Your task to perform on an android device: What's the weather like in Delhi? Image 0: 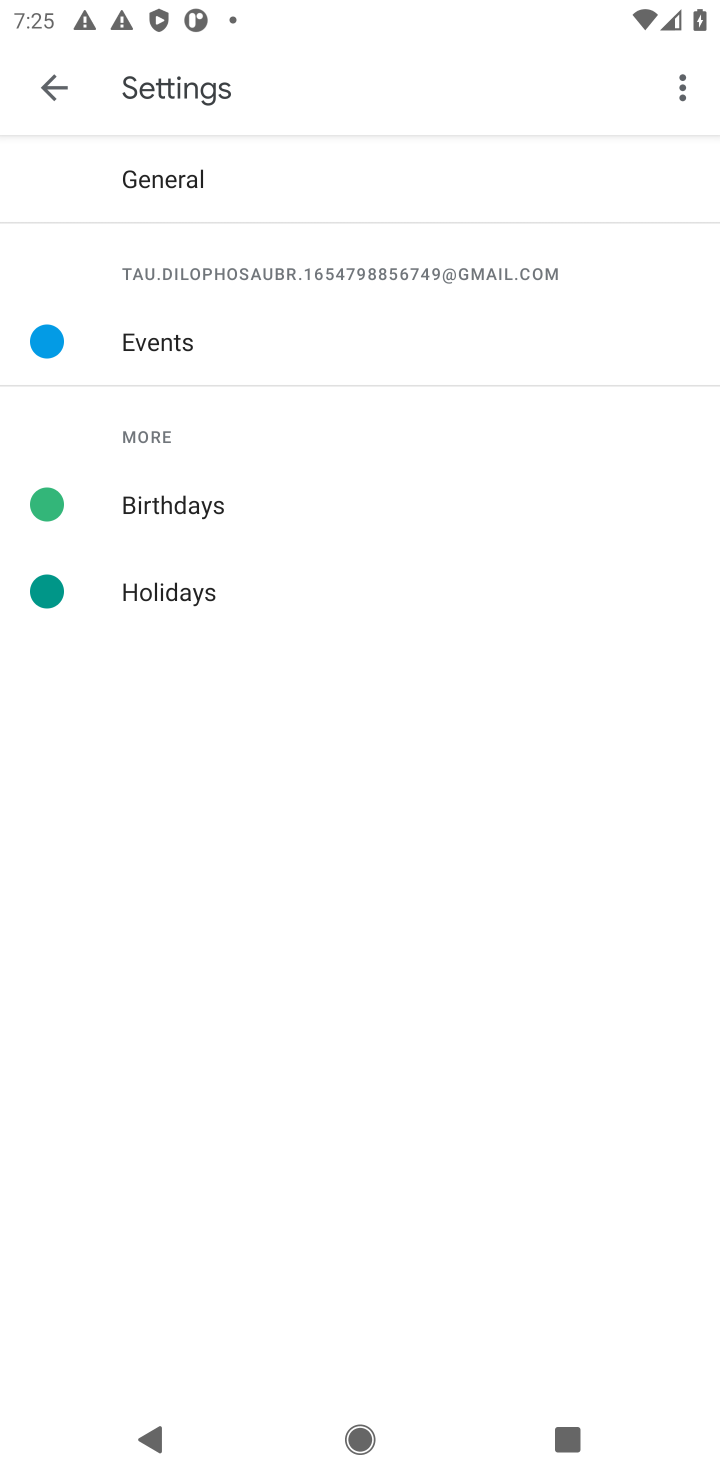
Step 0: press home button
Your task to perform on an android device: What's the weather like in Delhi? Image 1: 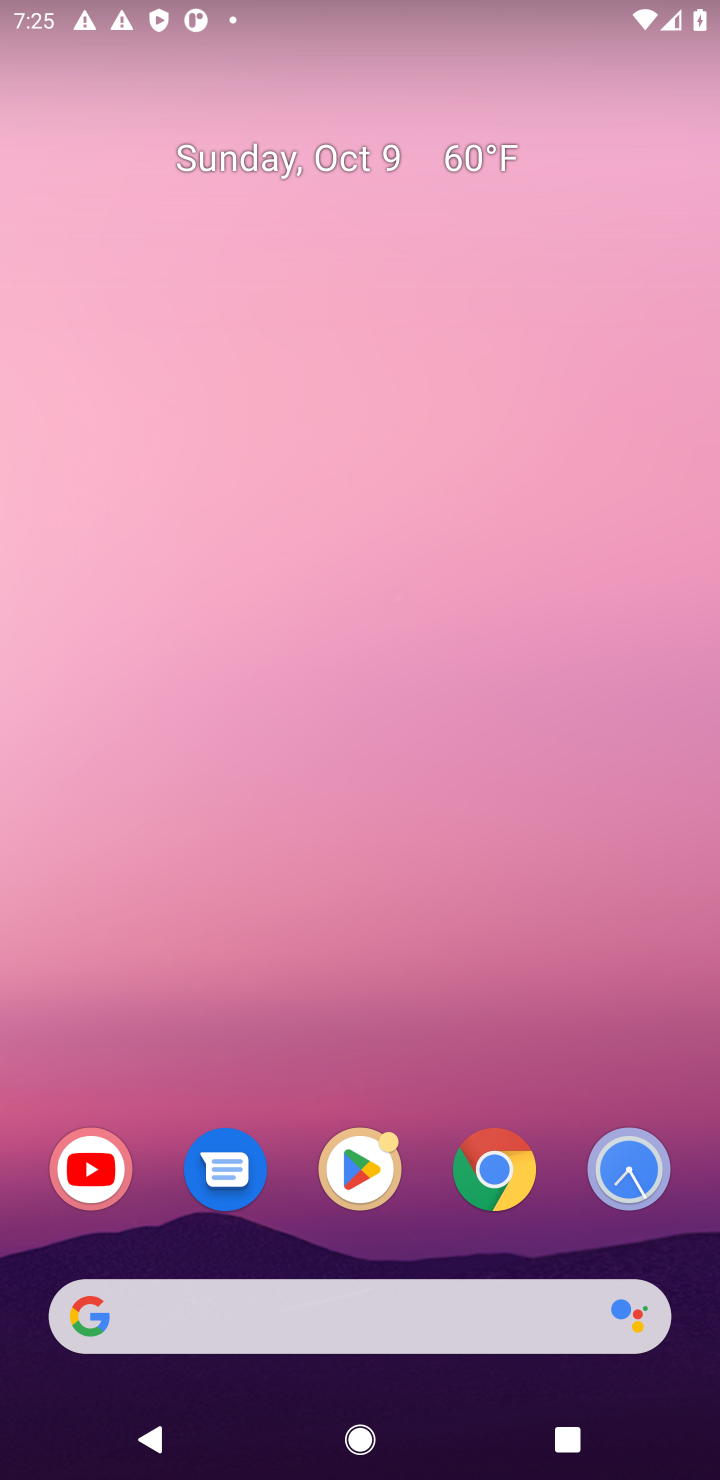
Step 1: drag from (426, 1083) to (461, 114)
Your task to perform on an android device: What's the weather like in Delhi? Image 2: 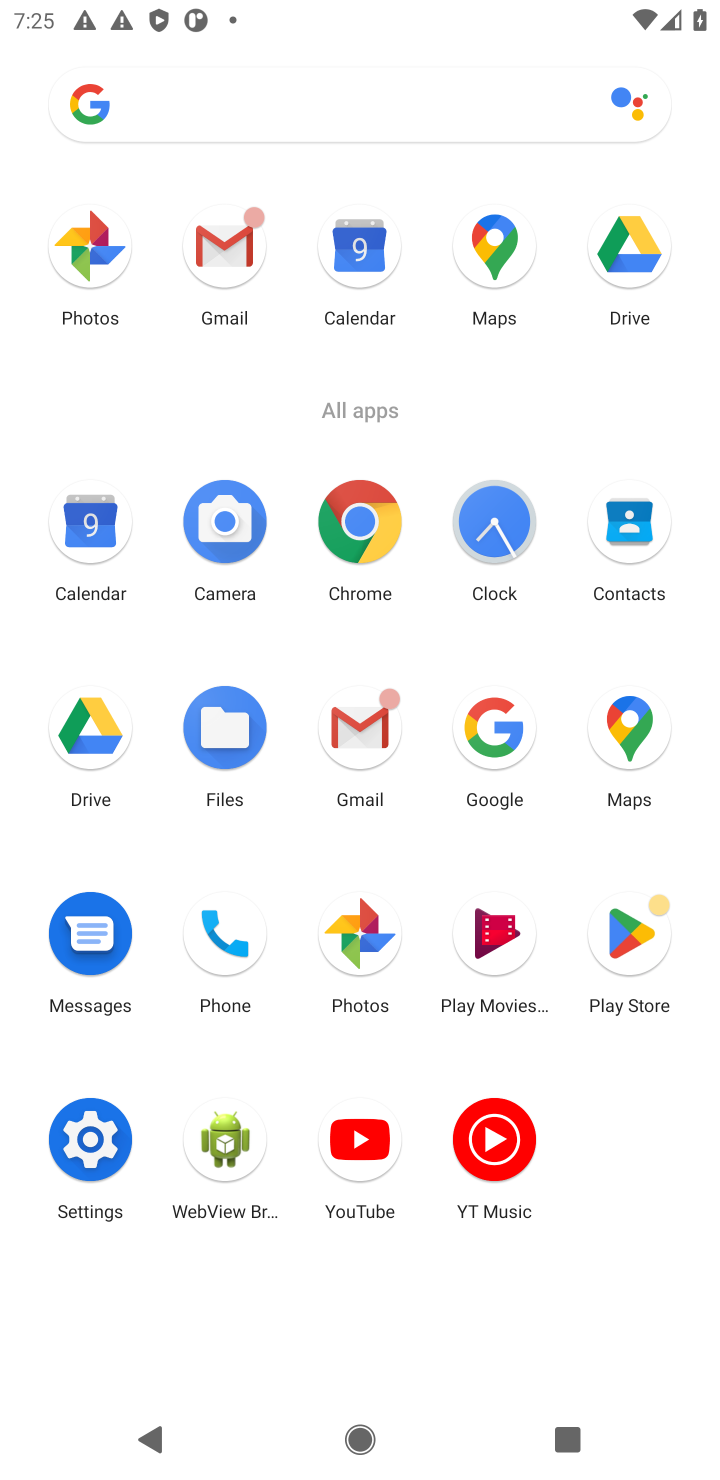
Step 2: click (363, 528)
Your task to perform on an android device: What's the weather like in Delhi? Image 3: 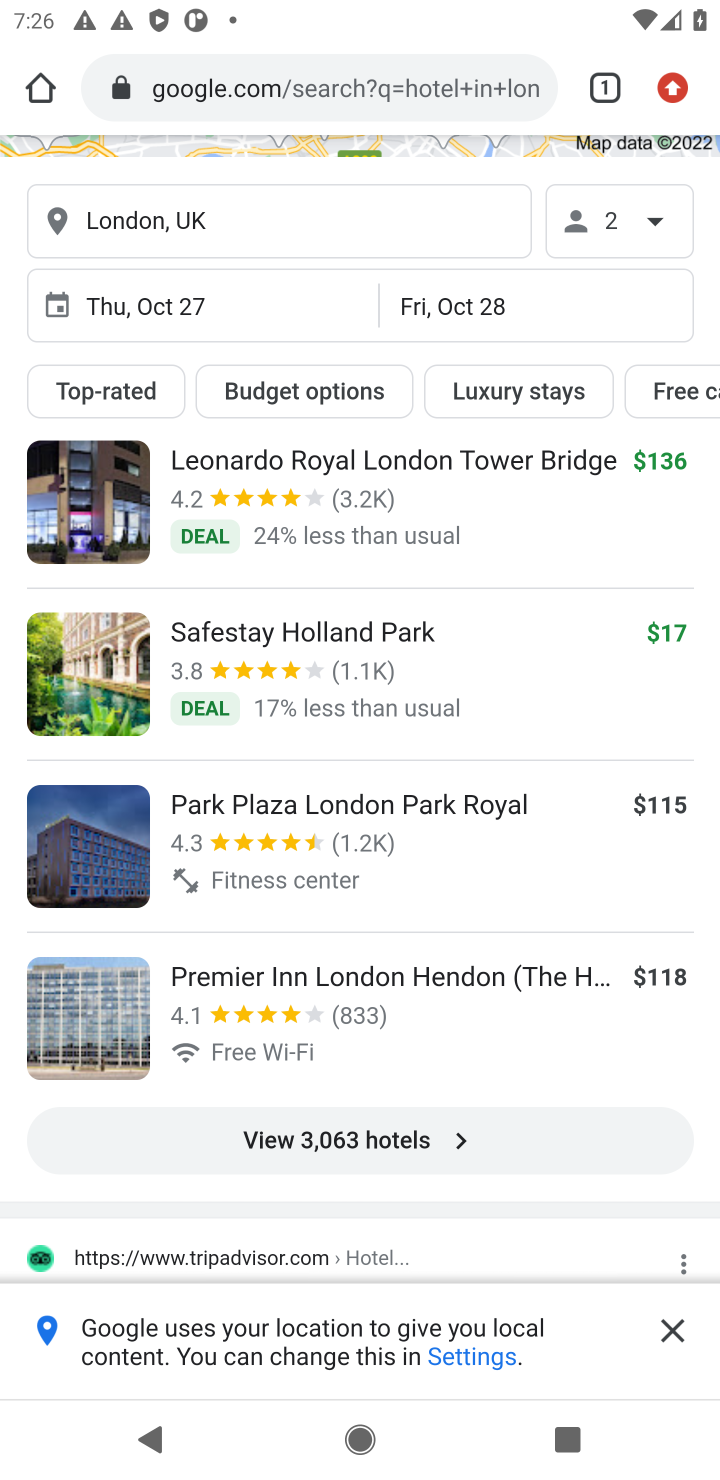
Step 3: click (391, 69)
Your task to perform on an android device: What's the weather like in Delhi? Image 4: 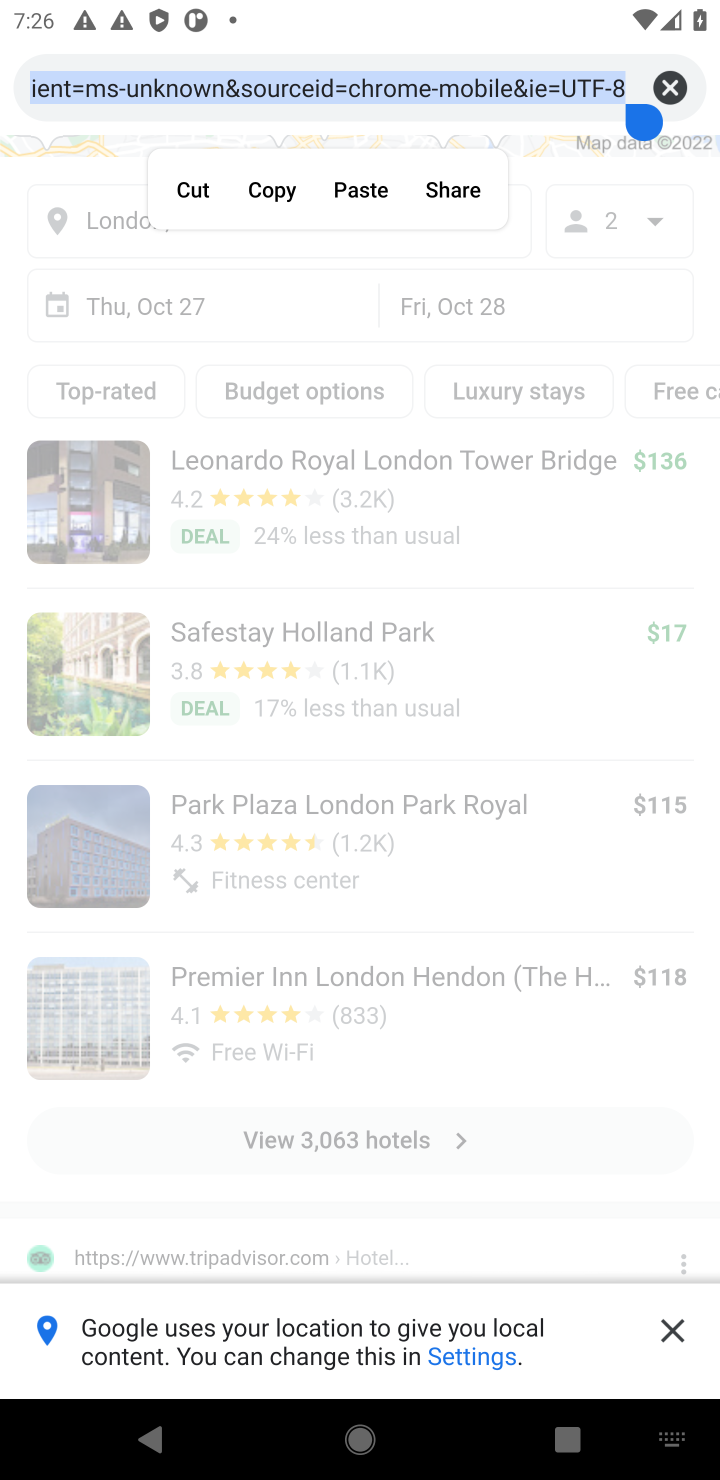
Step 4: type "weather in delhi"
Your task to perform on an android device: What's the weather like in Delhi? Image 5: 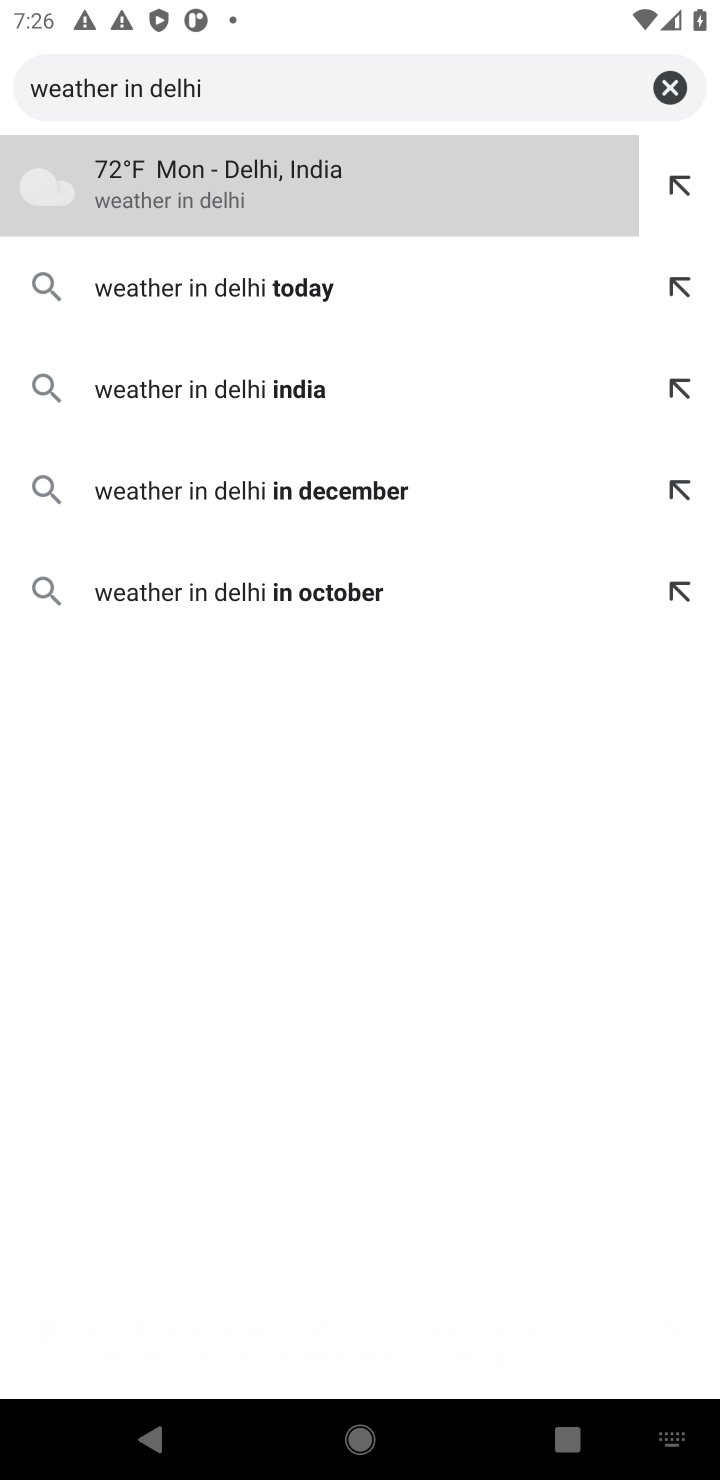
Step 5: click (99, 183)
Your task to perform on an android device: What's the weather like in Delhi? Image 6: 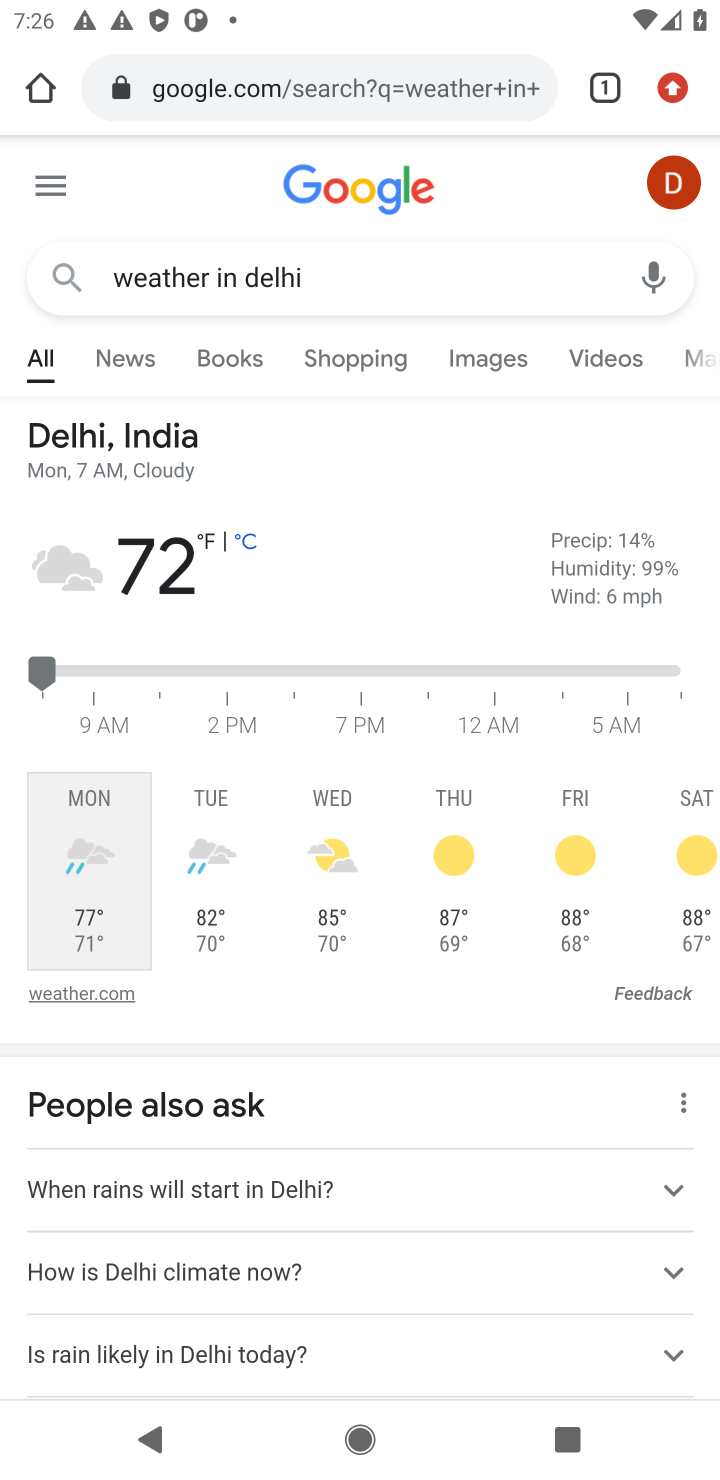
Step 6: task complete